Your task to perform on an android device: Open the web browser Image 0: 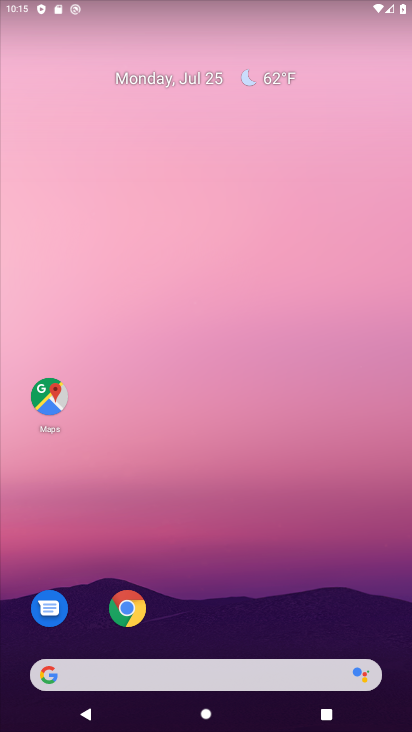
Step 0: click (115, 616)
Your task to perform on an android device: Open the web browser Image 1: 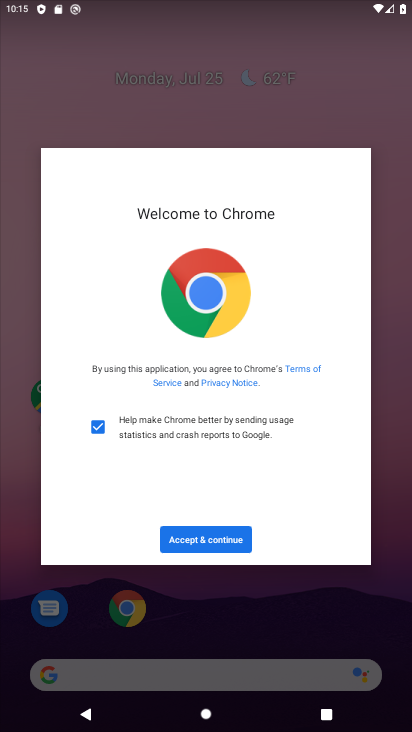
Step 1: click (217, 523)
Your task to perform on an android device: Open the web browser Image 2: 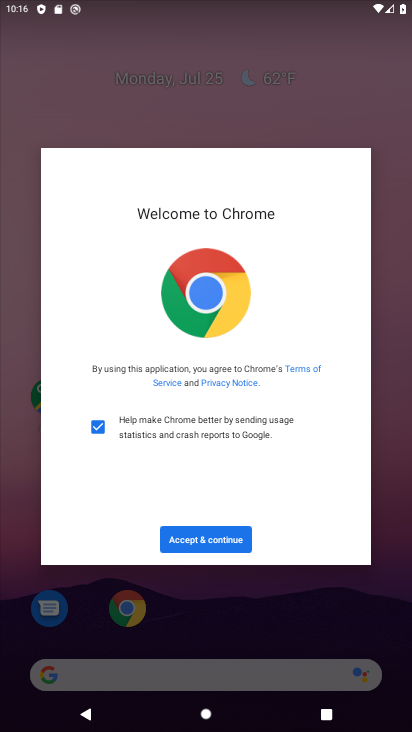
Step 2: click (220, 533)
Your task to perform on an android device: Open the web browser Image 3: 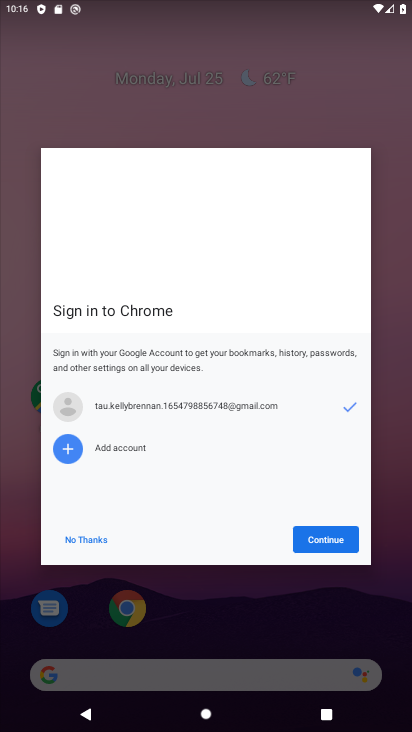
Step 3: click (311, 536)
Your task to perform on an android device: Open the web browser Image 4: 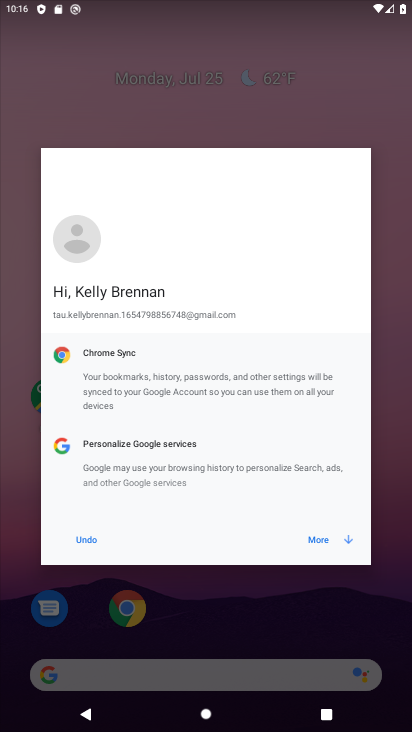
Step 4: click (325, 537)
Your task to perform on an android device: Open the web browser Image 5: 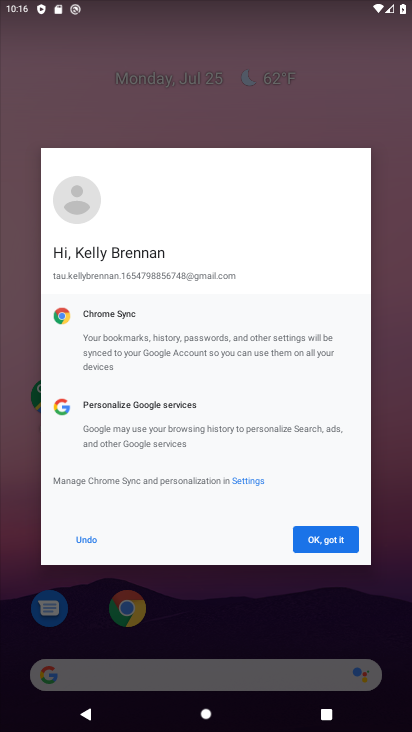
Step 5: click (325, 537)
Your task to perform on an android device: Open the web browser Image 6: 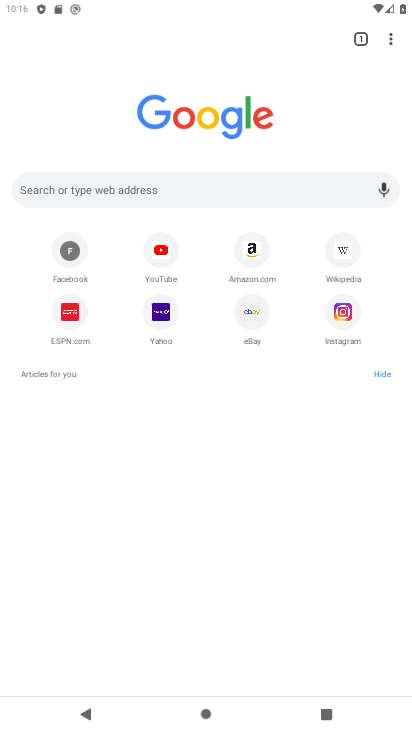
Step 6: task complete